Your task to perform on an android device: Go to notification settings Image 0: 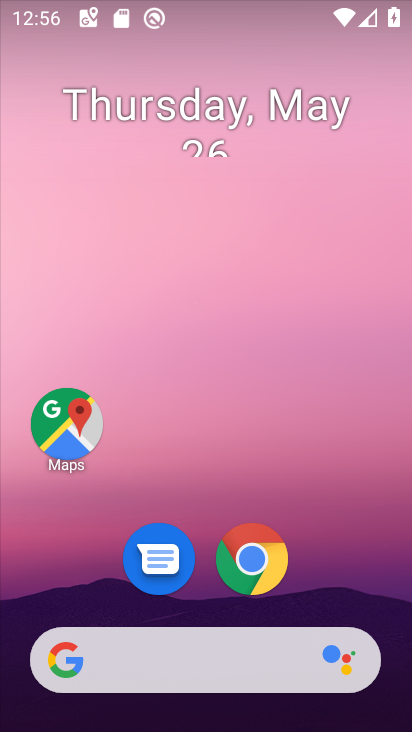
Step 0: press home button
Your task to perform on an android device: Go to notification settings Image 1: 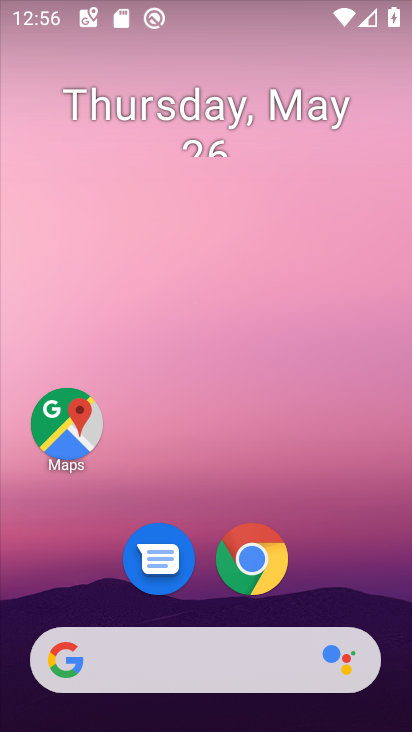
Step 1: drag from (325, 612) to (327, 134)
Your task to perform on an android device: Go to notification settings Image 2: 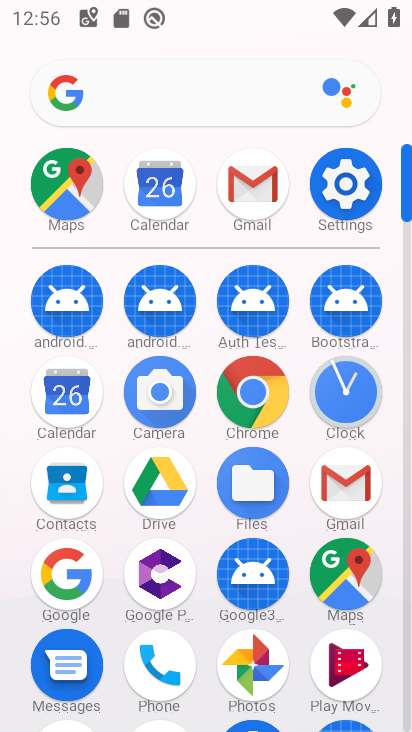
Step 2: click (345, 175)
Your task to perform on an android device: Go to notification settings Image 3: 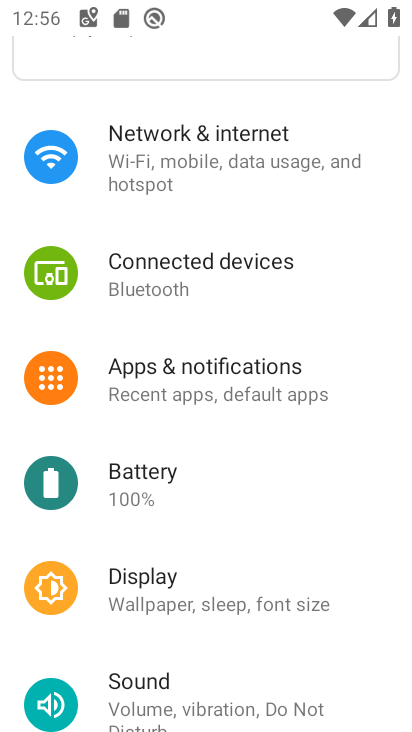
Step 3: click (190, 378)
Your task to perform on an android device: Go to notification settings Image 4: 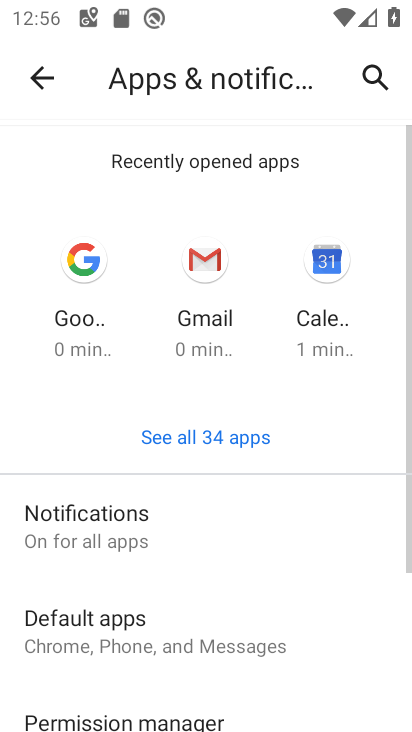
Step 4: click (76, 513)
Your task to perform on an android device: Go to notification settings Image 5: 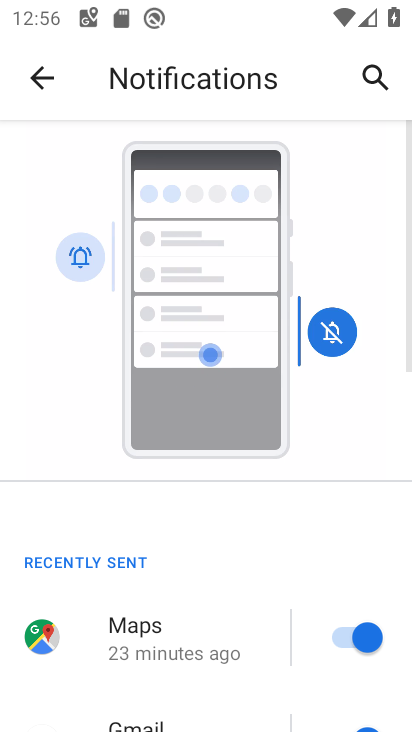
Step 5: task complete